Your task to perform on an android device: Open calendar and show me the first week of next month Image 0: 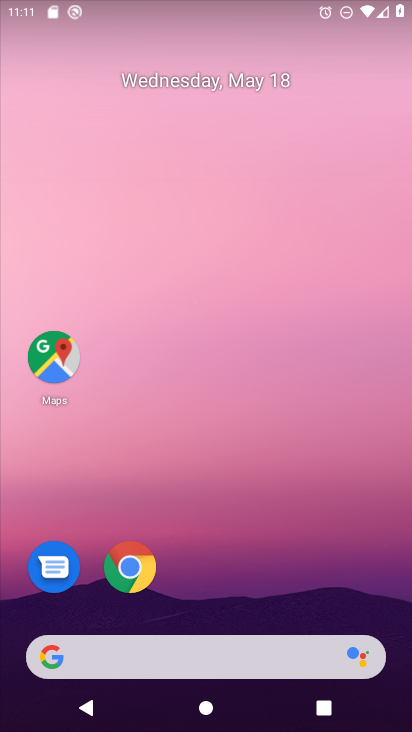
Step 0: drag from (262, 541) to (253, 265)
Your task to perform on an android device: Open calendar and show me the first week of next month Image 1: 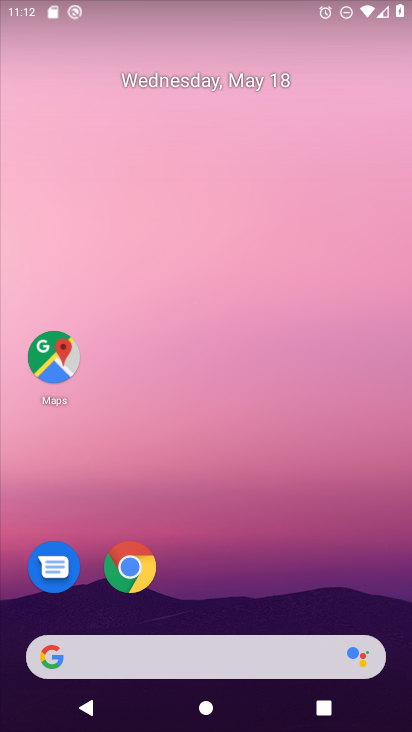
Step 1: drag from (282, 684) to (246, 292)
Your task to perform on an android device: Open calendar and show me the first week of next month Image 2: 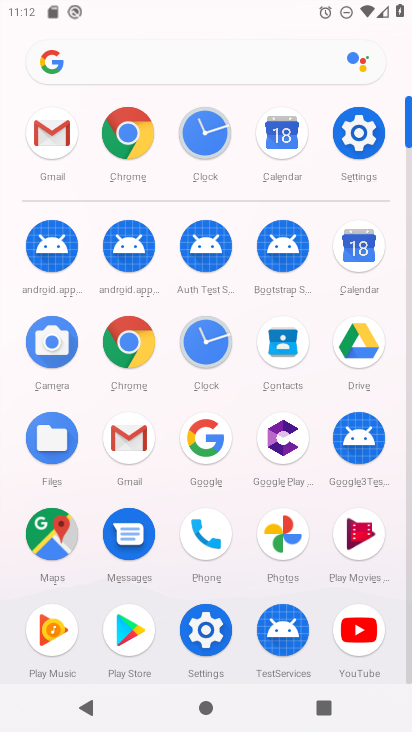
Step 2: click (334, 264)
Your task to perform on an android device: Open calendar and show me the first week of next month Image 3: 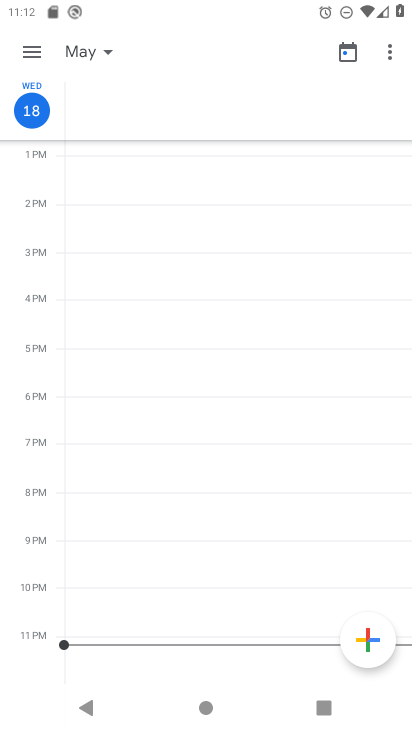
Step 3: click (29, 57)
Your task to perform on an android device: Open calendar and show me the first week of next month Image 4: 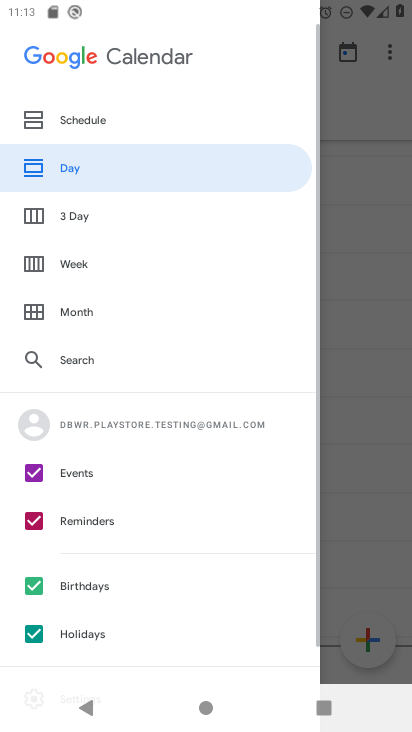
Step 4: click (92, 309)
Your task to perform on an android device: Open calendar and show me the first week of next month Image 5: 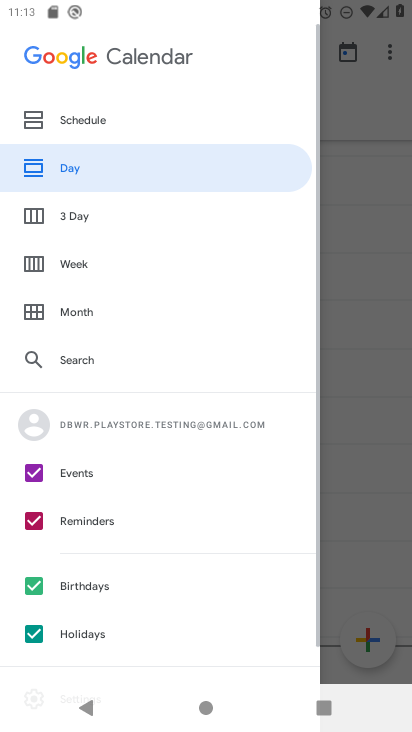
Step 5: click (97, 307)
Your task to perform on an android device: Open calendar and show me the first week of next month Image 6: 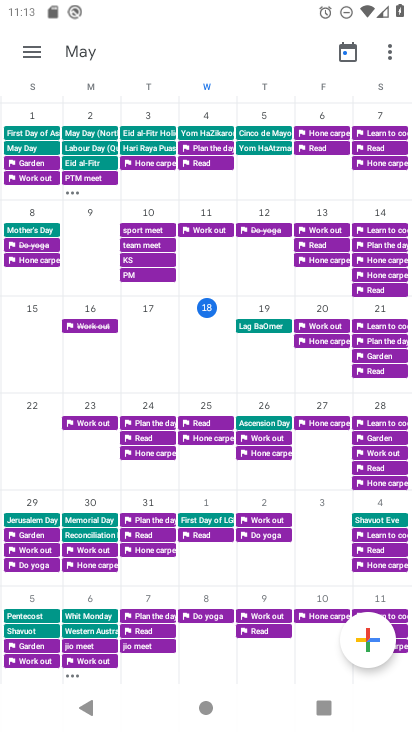
Step 6: drag from (355, 442) to (1, 373)
Your task to perform on an android device: Open calendar and show me the first week of next month Image 7: 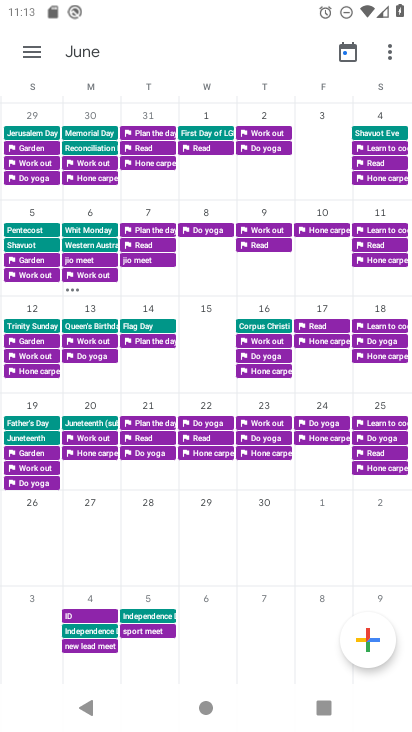
Step 7: click (97, 171)
Your task to perform on an android device: Open calendar and show me the first week of next month Image 8: 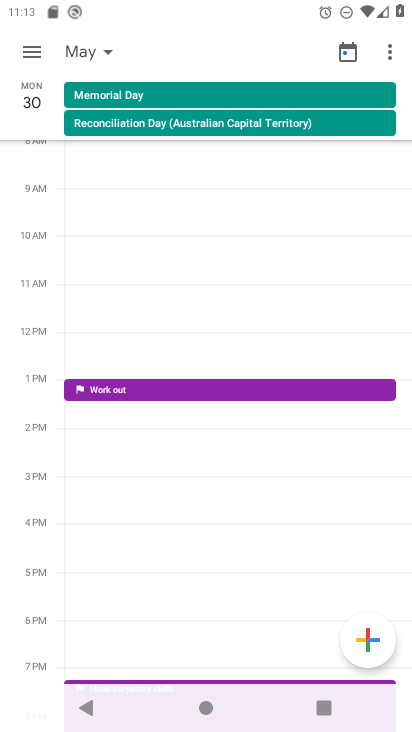
Step 8: task complete